Your task to perform on an android device: see creations saved in the google photos Image 0: 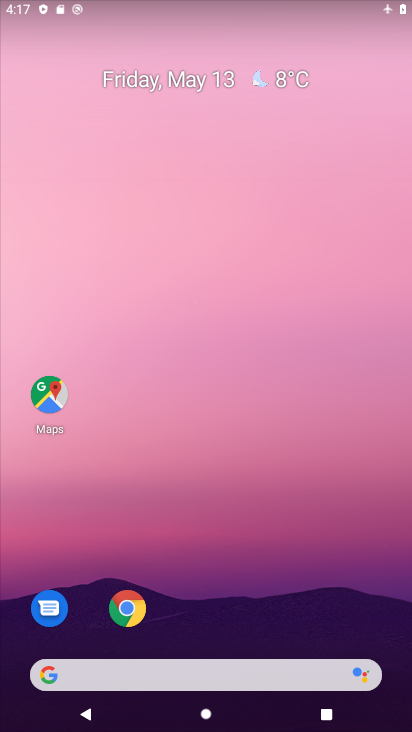
Step 0: drag from (263, 603) to (198, 222)
Your task to perform on an android device: see creations saved in the google photos Image 1: 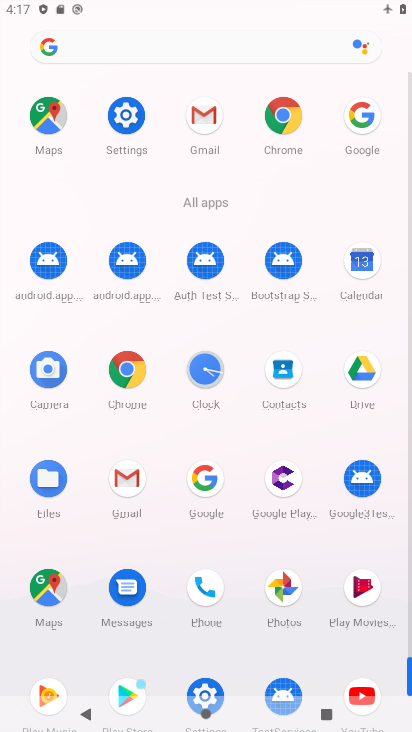
Step 1: click (286, 587)
Your task to perform on an android device: see creations saved in the google photos Image 2: 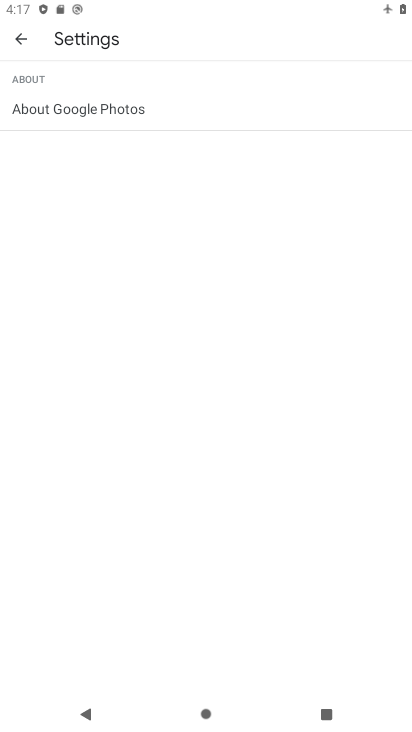
Step 2: press back button
Your task to perform on an android device: see creations saved in the google photos Image 3: 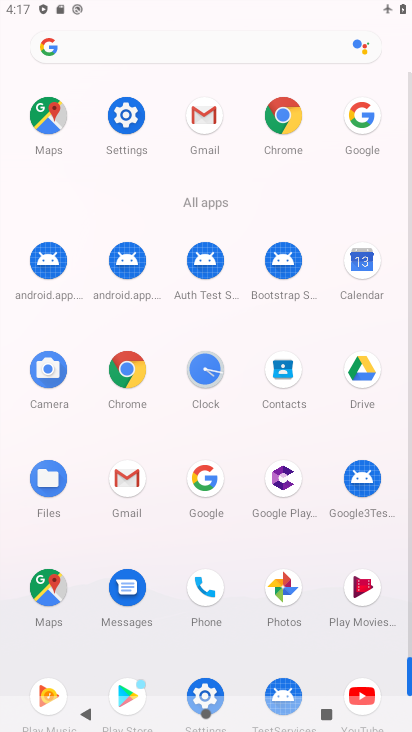
Step 3: click (280, 586)
Your task to perform on an android device: see creations saved in the google photos Image 4: 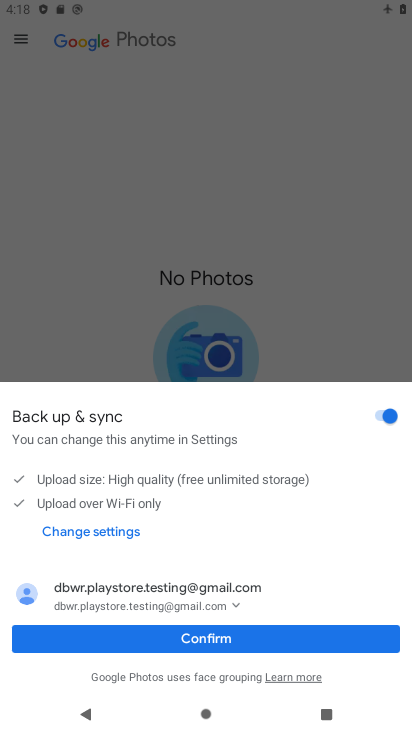
Step 4: click (219, 641)
Your task to perform on an android device: see creations saved in the google photos Image 5: 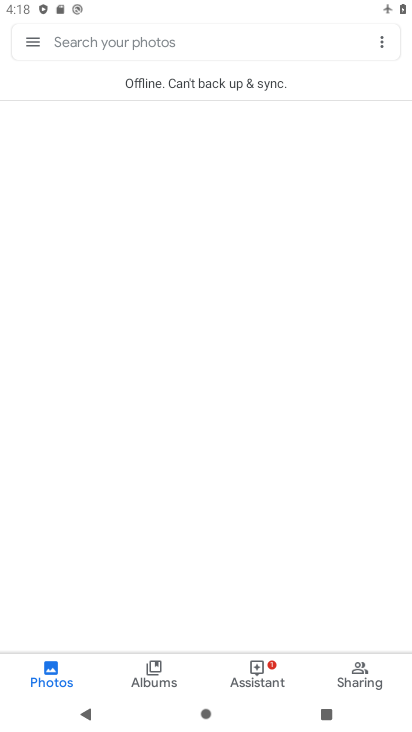
Step 5: click (220, 35)
Your task to perform on an android device: see creations saved in the google photos Image 6: 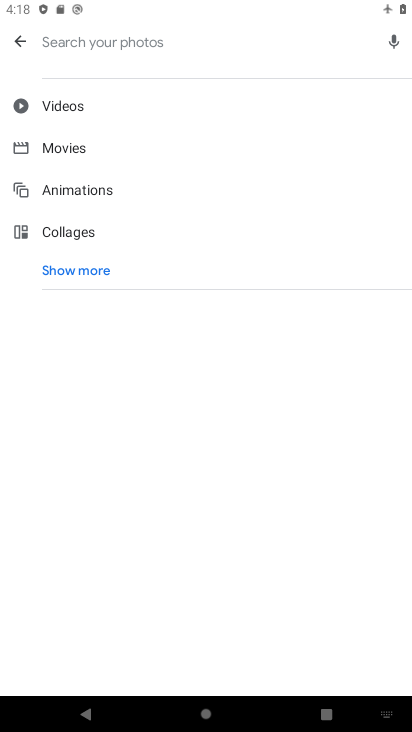
Step 6: click (98, 264)
Your task to perform on an android device: see creations saved in the google photos Image 7: 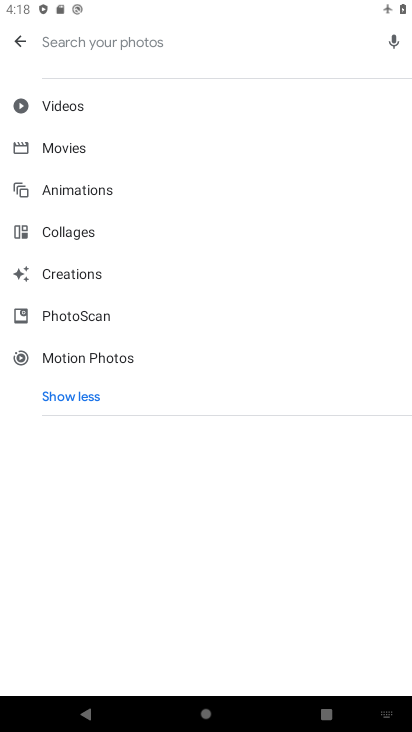
Step 7: click (80, 276)
Your task to perform on an android device: see creations saved in the google photos Image 8: 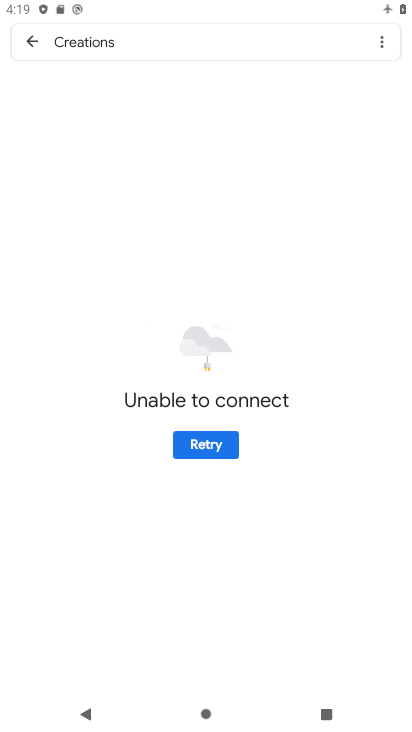
Step 8: task complete